Your task to perform on an android device: open chrome and create a bookmark for the current page Image 0: 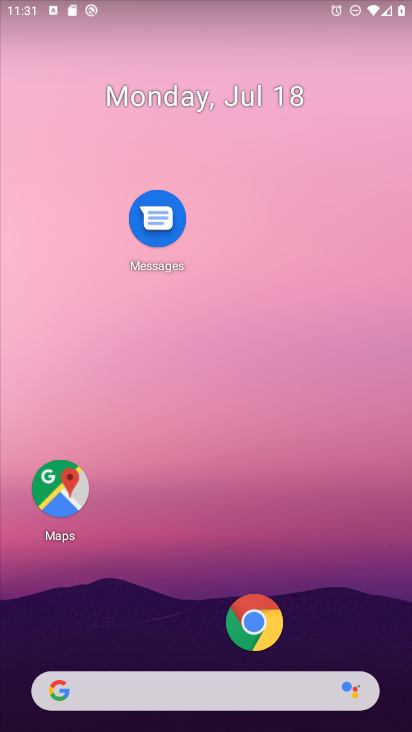
Step 0: drag from (321, 642) to (326, 104)
Your task to perform on an android device: open chrome and create a bookmark for the current page Image 1: 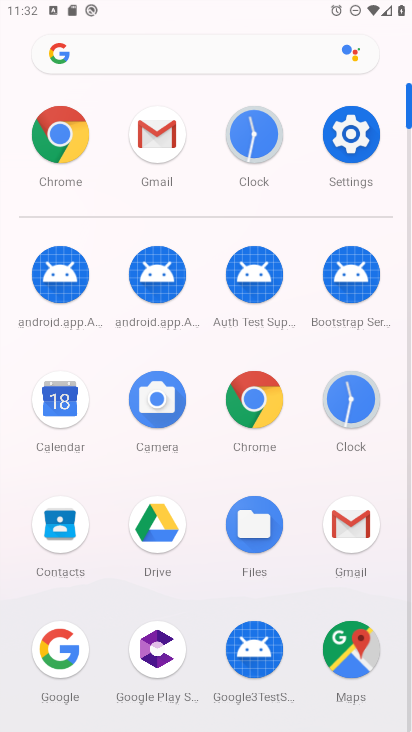
Step 1: drag from (205, 556) to (208, 364)
Your task to perform on an android device: open chrome and create a bookmark for the current page Image 2: 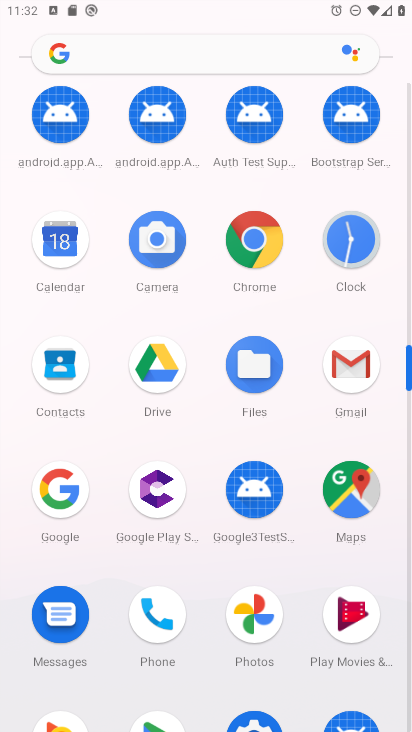
Step 2: click (262, 277)
Your task to perform on an android device: open chrome and create a bookmark for the current page Image 3: 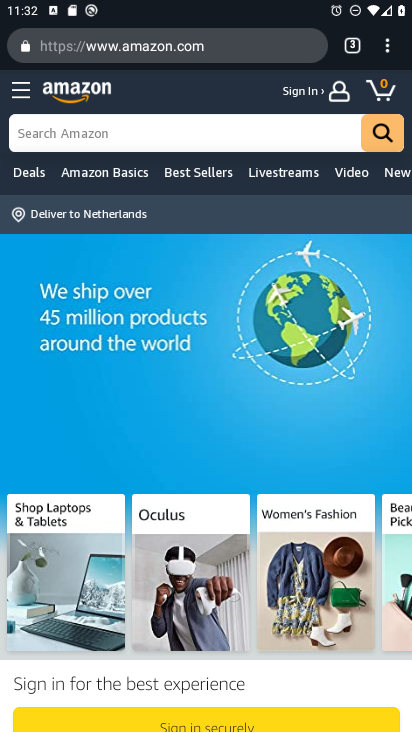
Step 3: click (388, 57)
Your task to perform on an android device: open chrome and create a bookmark for the current page Image 4: 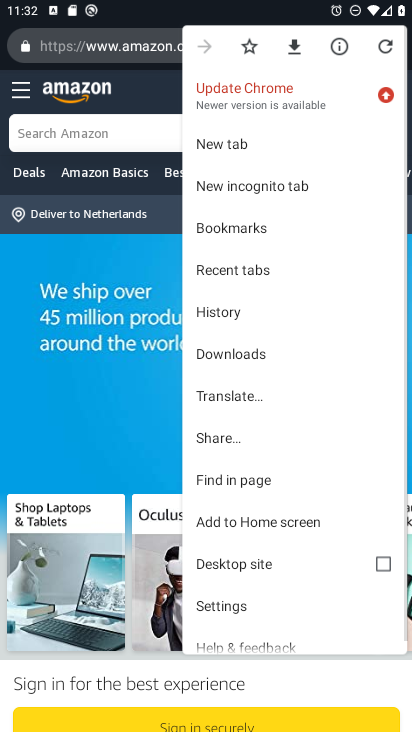
Step 4: click (253, 47)
Your task to perform on an android device: open chrome and create a bookmark for the current page Image 5: 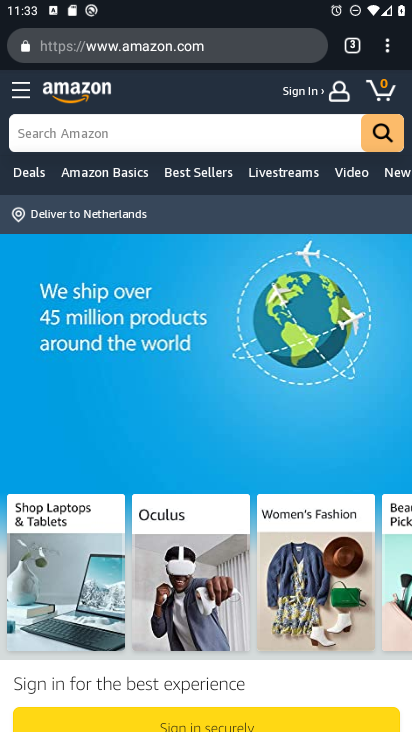
Step 5: task complete